Your task to perform on an android device: Search for Italian restaurants on Maps Image 0: 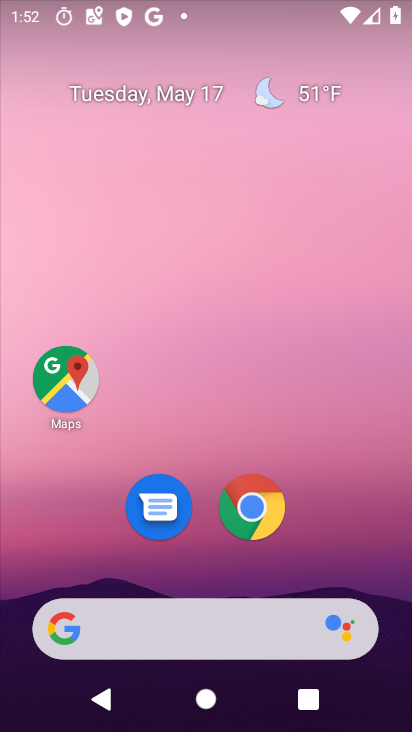
Step 0: click (70, 381)
Your task to perform on an android device: Search for Italian restaurants on Maps Image 1: 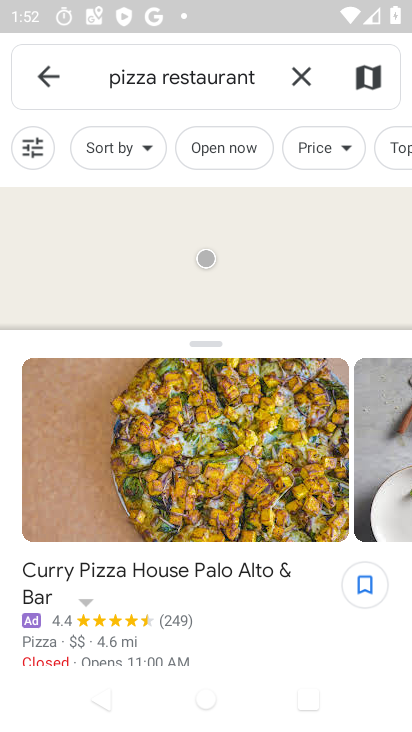
Step 1: click (312, 73)
Your task to perform on an android device: Search for Italian restaurants on Maps Image 2: 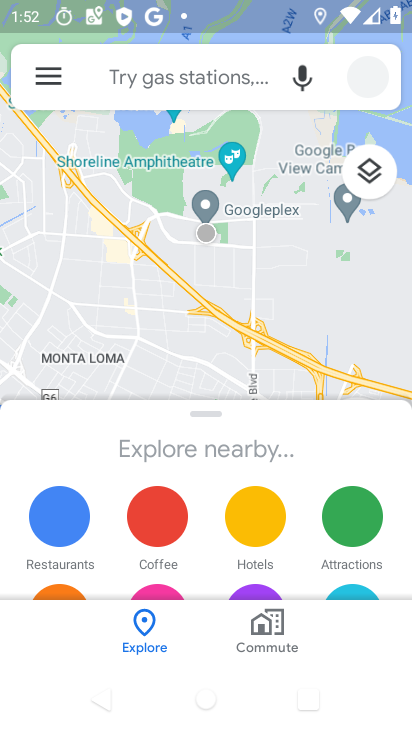
Step 2: click (166, 83)
Your task to perform on an android device: Search for Italian restaurants on Maps Image 3: 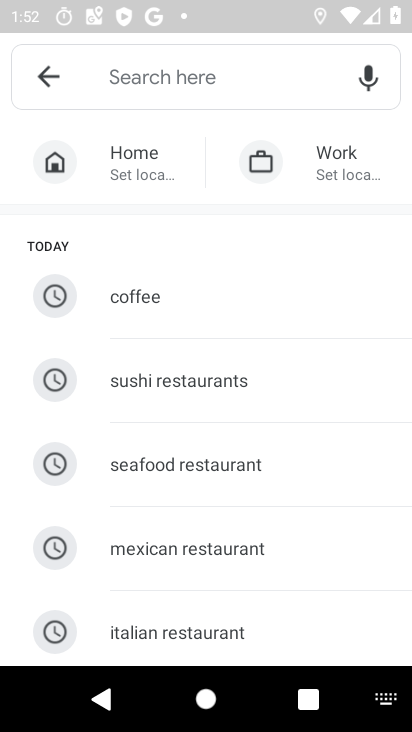
Step 3: click (164, 633)
Your task to perform on an android device: Search for Italian restaurants on Maps Image 4: 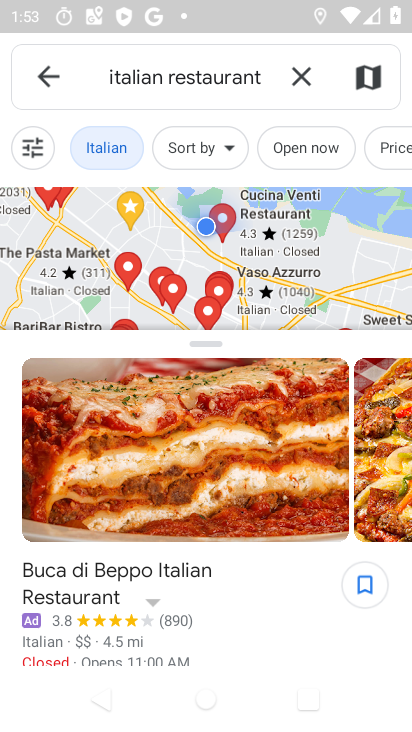
Step 4: task complete